Your task to perform on an android device: Go to accessibility settings Image 0: 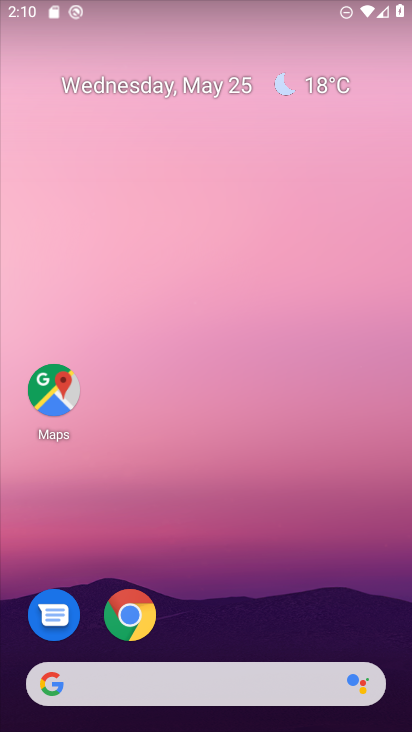
Step 0: drag from (280, 576) to (298, 31)
Your task to perform on an android device: Go to accessibility settings Image 1: 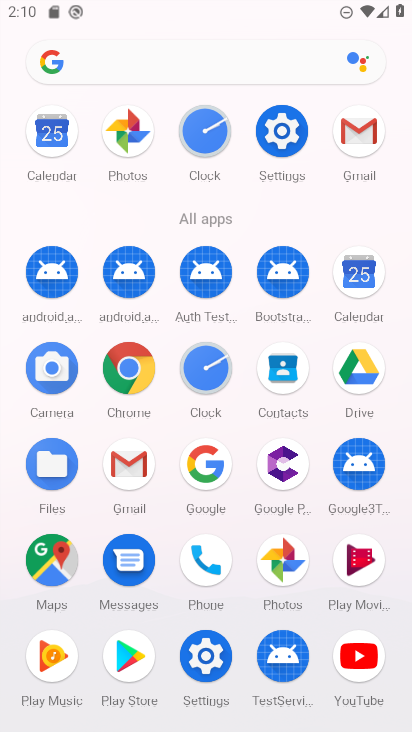
Step 1: click (284, 138)
Your task to perform on an android device: Go to accessibility settings Image 2: 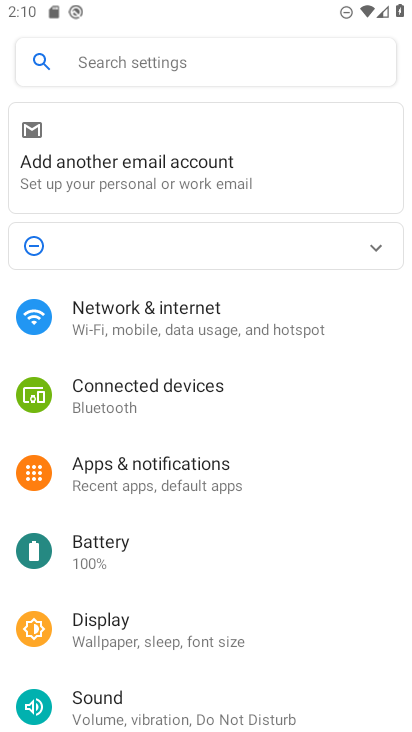
Step 2: drag from (206, 553) to (270, 5)
Your task to perform on an android device: Go to accessibility settings Image 3: 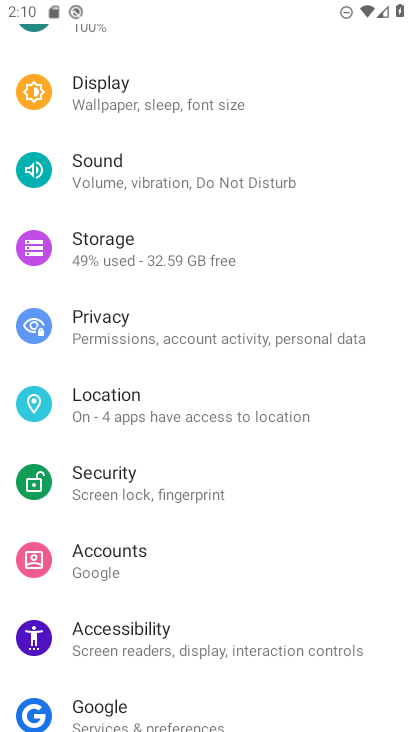
Step 3: click (197, 636)
Your task to perform on an android device: Go to accessibility settings Image 4: 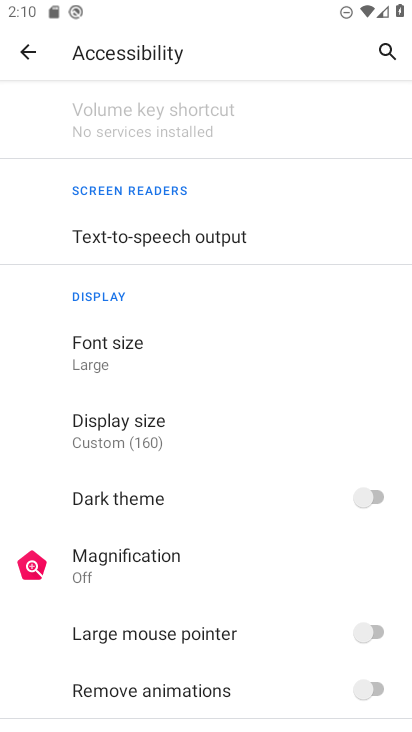
Step 4: task complete